Your task to perform on an android device: See recent photos Image 0: 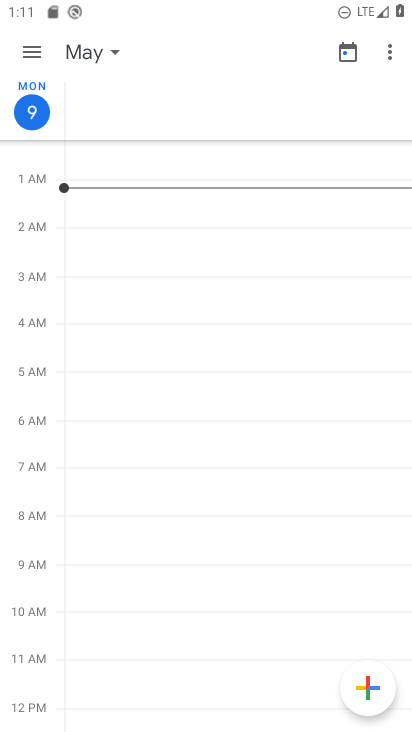
Step 0: press home button
Your task to perform on an android device: See recent photos Image 1: 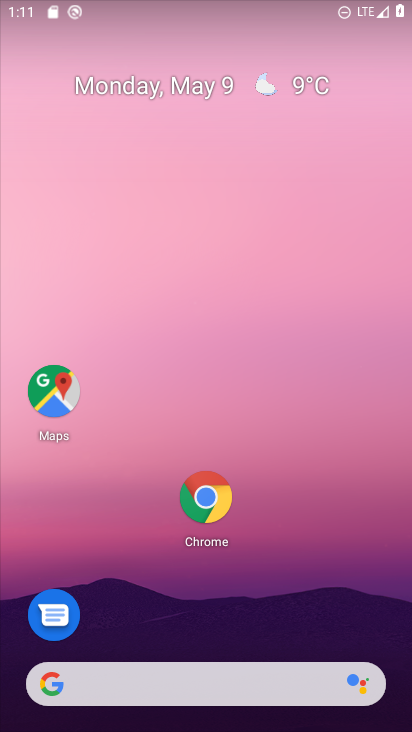
Step 1: drag from (321, 539) to (274, 111)
Your task to perform on an android device: See recent photos Image 2: 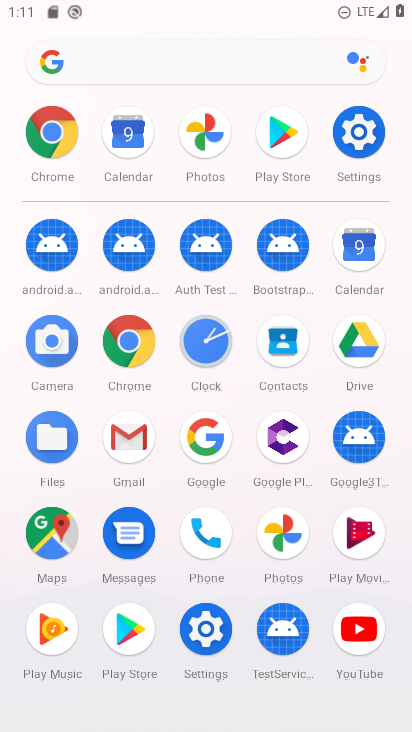
Step 2: click (204, 123)
Your task to perform on an android device: See recent photos Image 3: 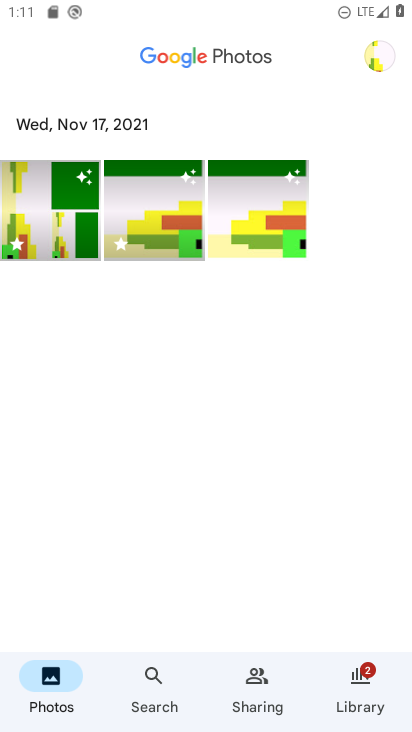
Step 3: task complete